Your task to perform on an android device: allow notifications from all sites in the chrome app Image 0: 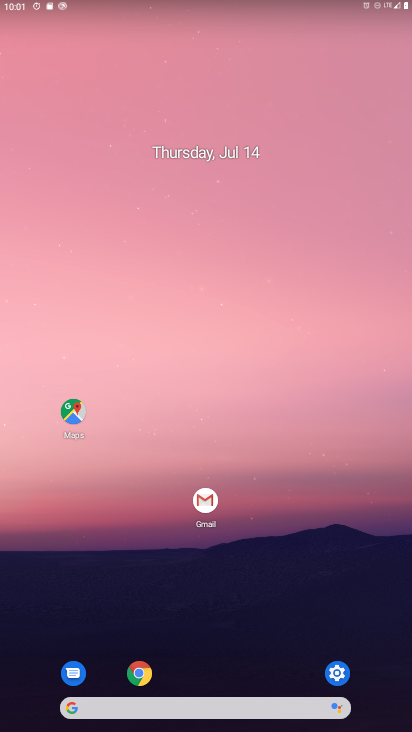
Step 0: press home button
Your task to perform on an android device: allow notifications from all sites in the chrome app Image 1: 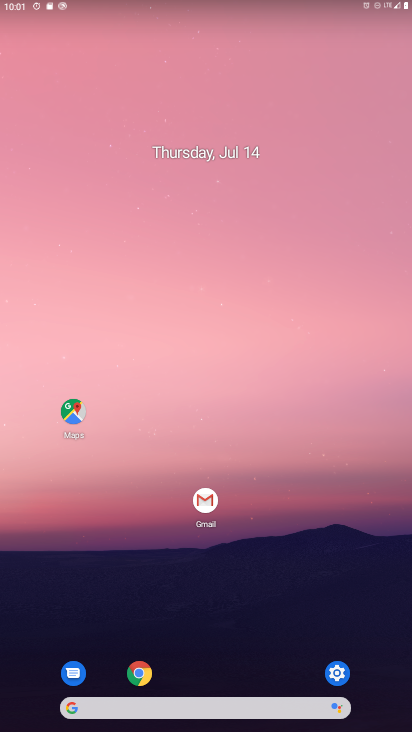
Step 1: click (137, 668)
Your task to perform on an android device: allow notifications from all sites in the chrome app Image 2: 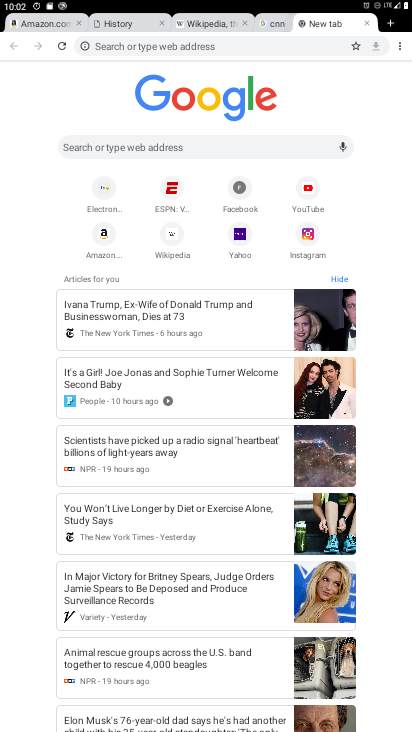
Step 2: click (399, 48)
Your task to perform on an android device: allow notifications from all sites in the chrome app Image 3: 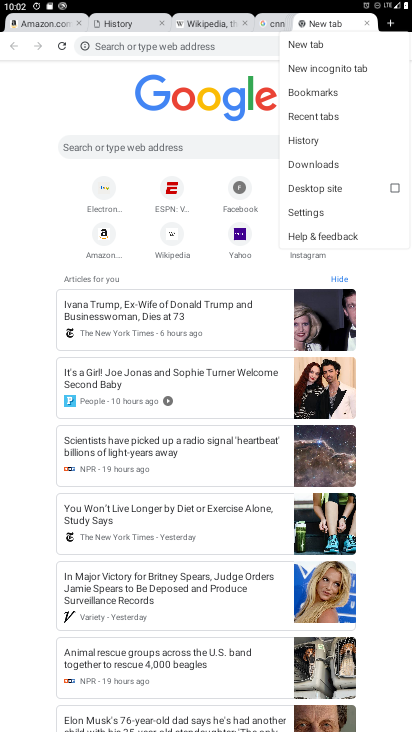
Step 3: click (319, 211)
Your task to perform on an android device: allow notifications from all sites in the chrome app Image 4: 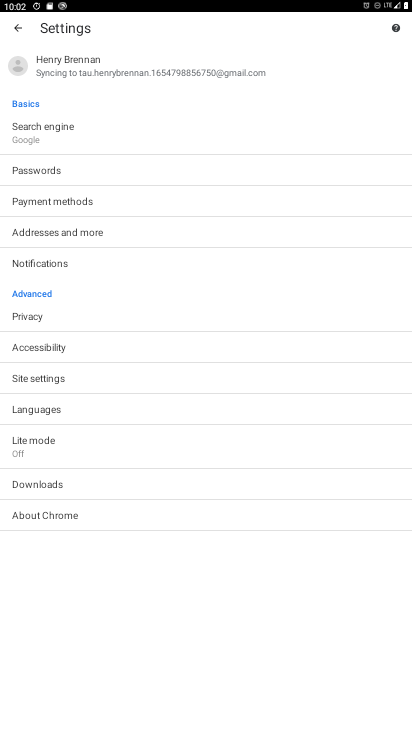
Step 4: click (48, 382)
Your task to perform on an android device: allow notifications from all sites in the chrome app Image 5: 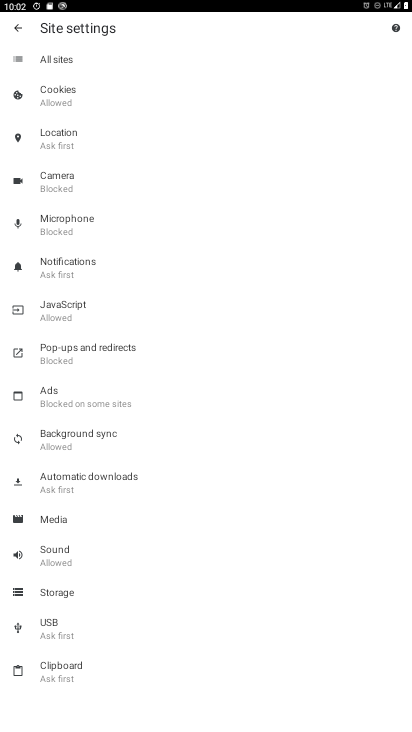
Step 5: click (82, 270)
Your task to perform on an android device: allow notifications from all sites in the chrome app Image 6: 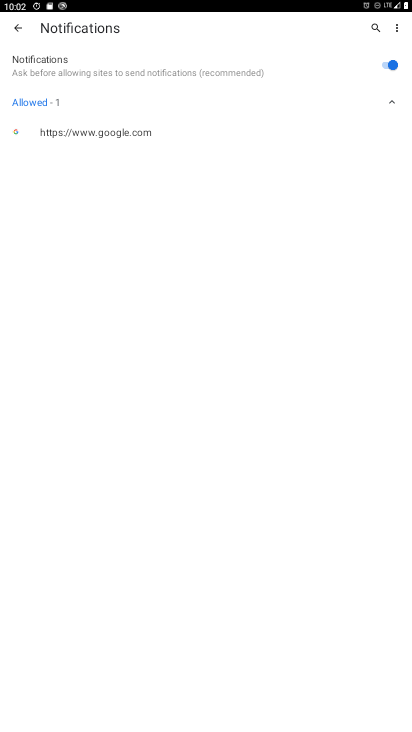
Step 6: click (395, 66)
Your task to perform on an android device: allow notifications from all sites in the chrome app Image 7: 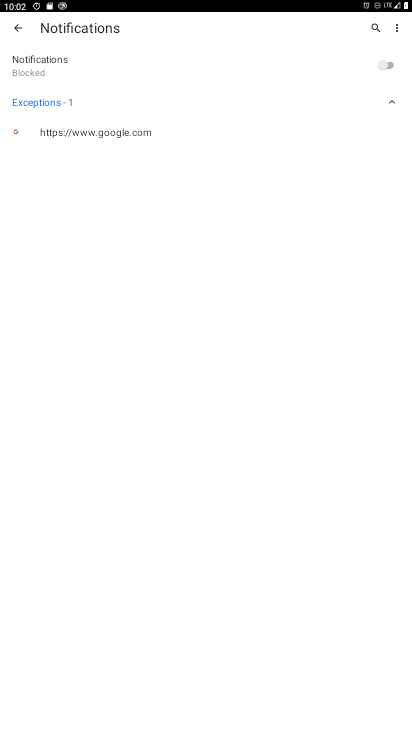
Step 7: click (395, 66)
Your task to perform on an android device: allow notifications from all sites in the chrome app Image 8: 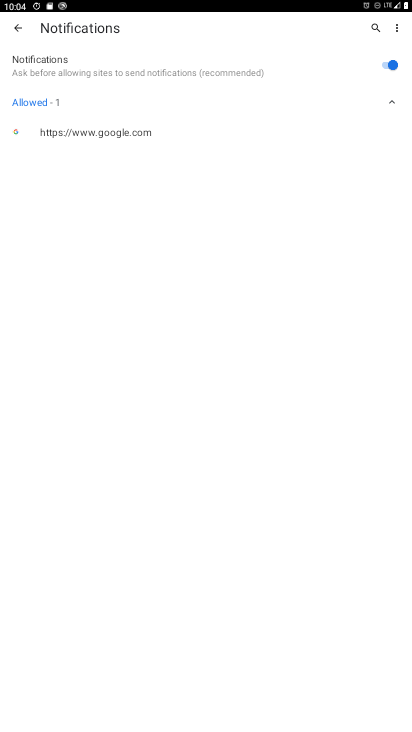
Step 8: task complete